Your task to perform on an android device: Open Maps and search for coffee Image 0: 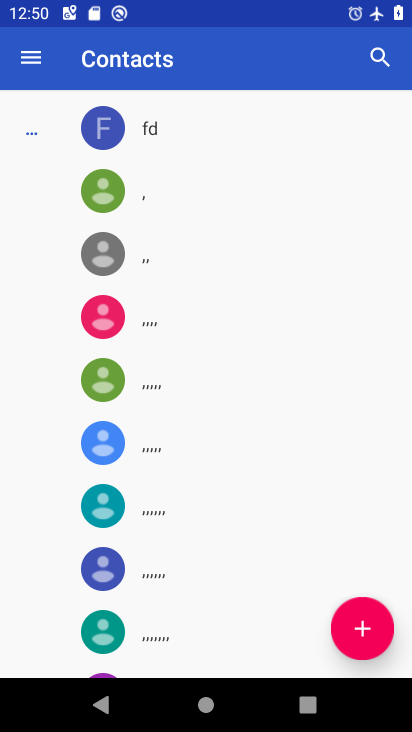
Step 0: press home button
Your task to perform on an android device: Open Maps and search for coffee Image 1: 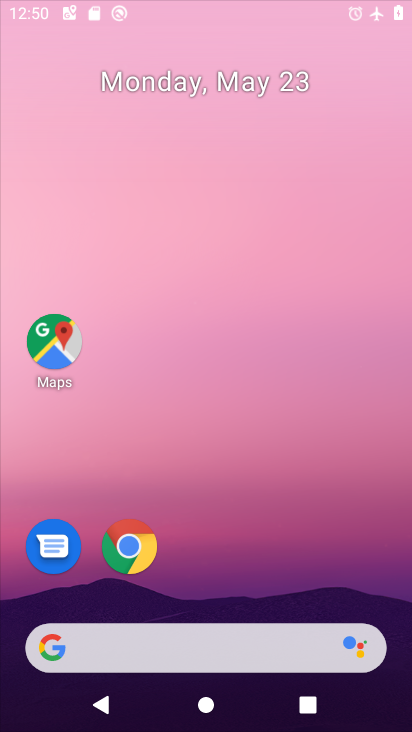
Step 1: drag from (229, 671) to (229, 147)
Your task to perform on an android device: Open Maps and search for coffee Image 2: 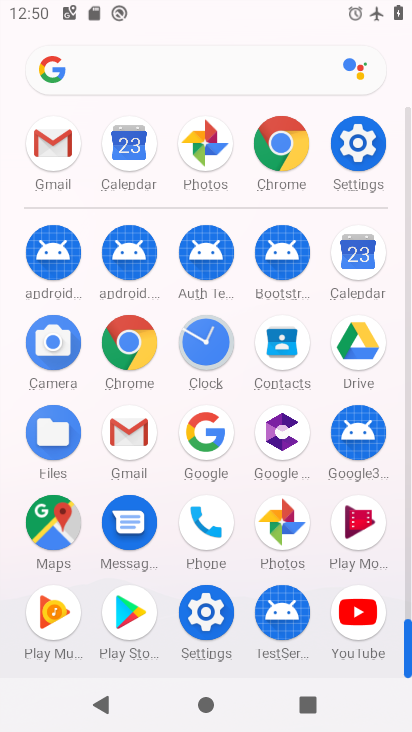
Step 2: click (48, 534)
Your task to perform on an android device: Open Maps and search for coffee Image 3: 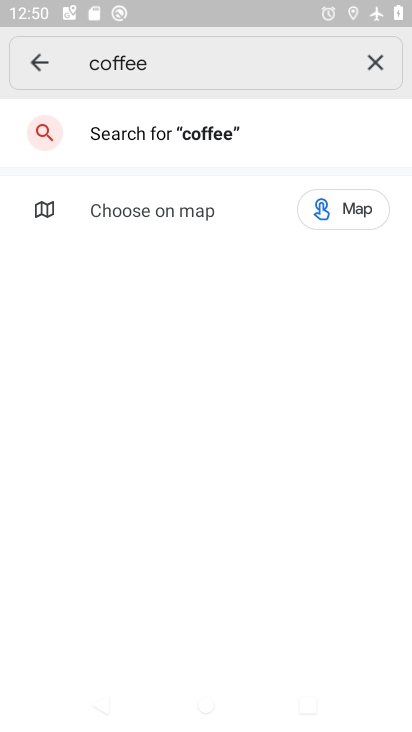
Step 3: task complete